Your task to perform on an android device: clear history in the chrome app Image 0: 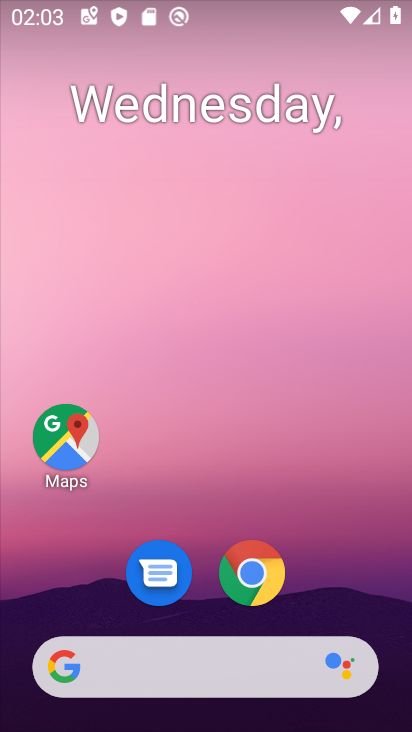
Step 0: click (267, 577)
Your task to perform on an android device: clear history in the chrome app Image 1: 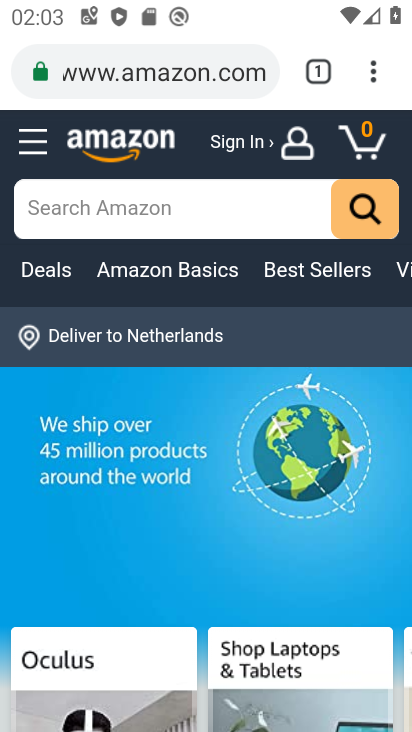
Step 1: click (374, 77)
Your task to perform on an android device: clear history in the chrome app Image 2: 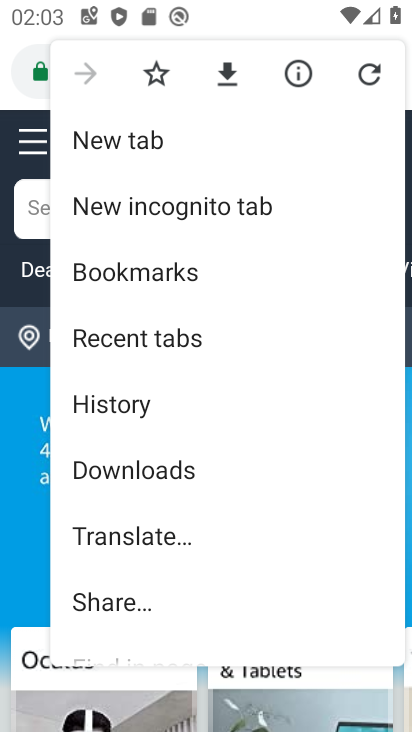
Step 2: click (118, 395)
Your task to perform on an android device: clear history in the chrome app Image 3: 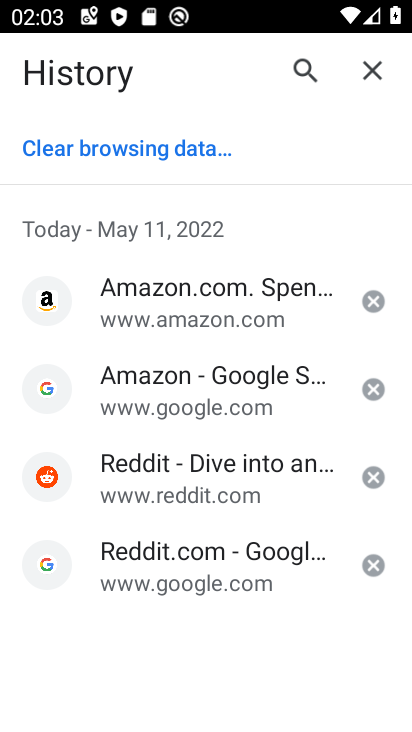
Step 3: click (144, 146)
Your task to perform on an android device: clear history in the chrome app Image 4: 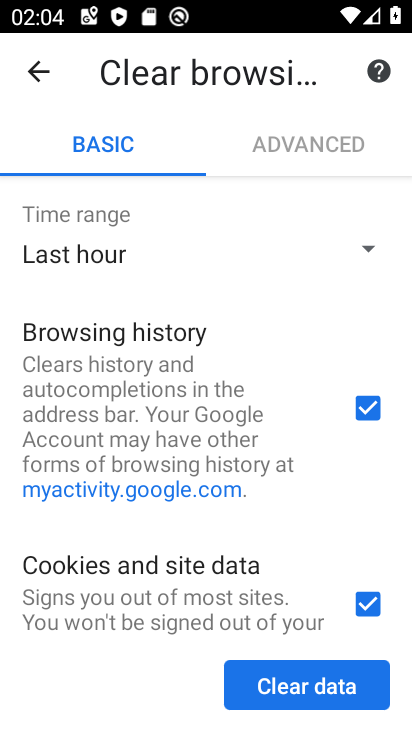
Step 4: click (312, 686)
Your task to perform on an android device: clear history in the chrome app Image 5: 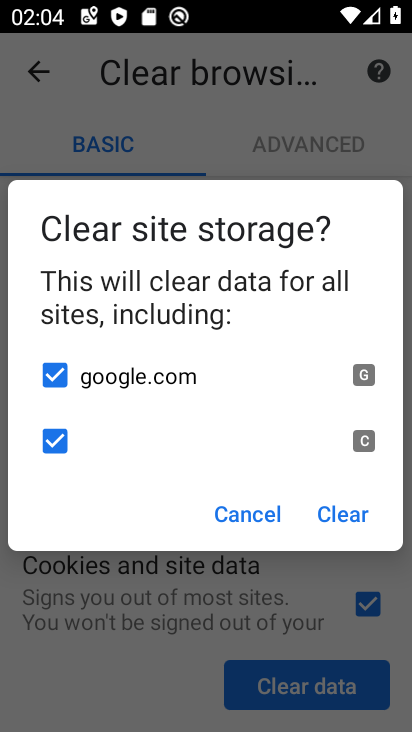
Step 5: click (333, 512)
Your task to perform on an android device: clear history in the chrome app Image 6: 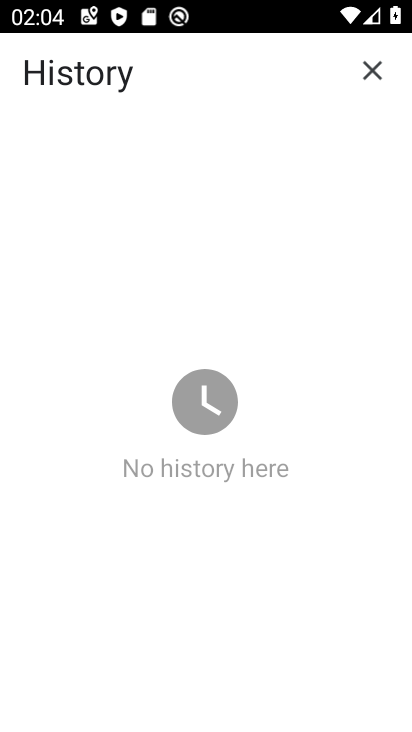
Step 6: task complete